Your task to perform on an android device: Is it going to rain today? Image 0: 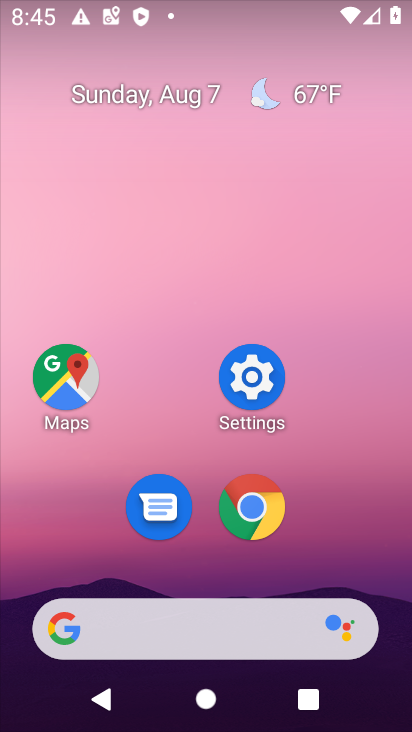
Step 0: click (154, 638)
Your task to perform on an android device: Is it going to rain today? Image 1: 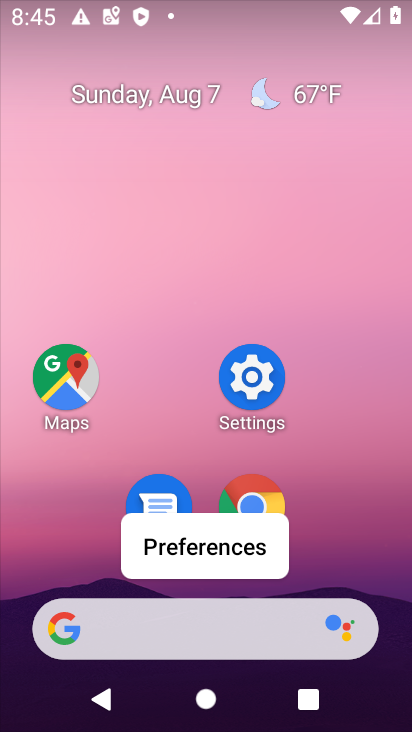
Step 1: click (154, 638)
Your task to perform on an android device: Is it going to rain today? Image 2: 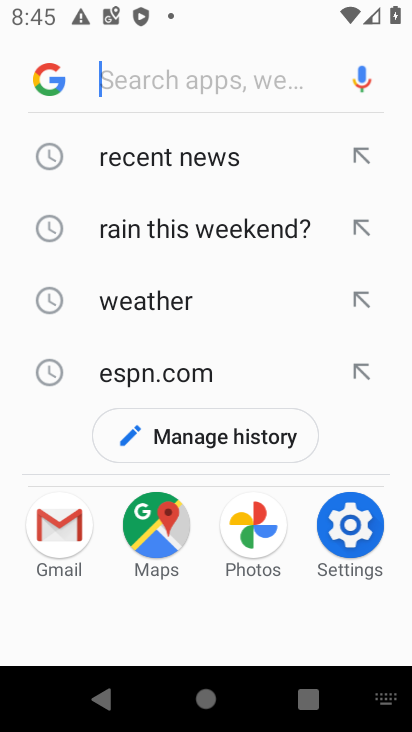
Step 2: click (166, 301)
Your task to perform on an android device: Is it going to rain today? Image 3: 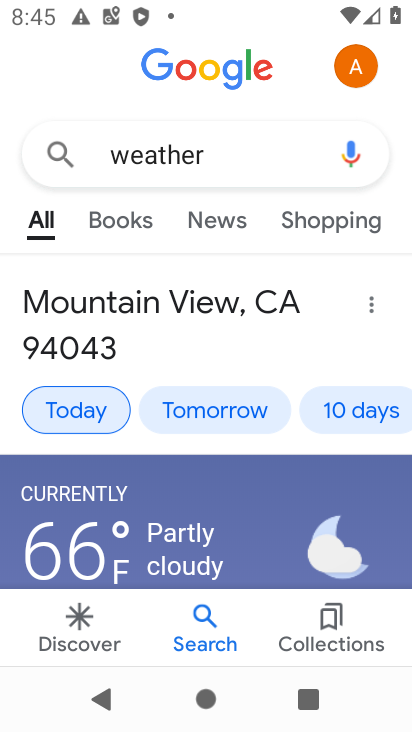
Step 3: task complete